Your task to perform on an android device: check android version Image 0: 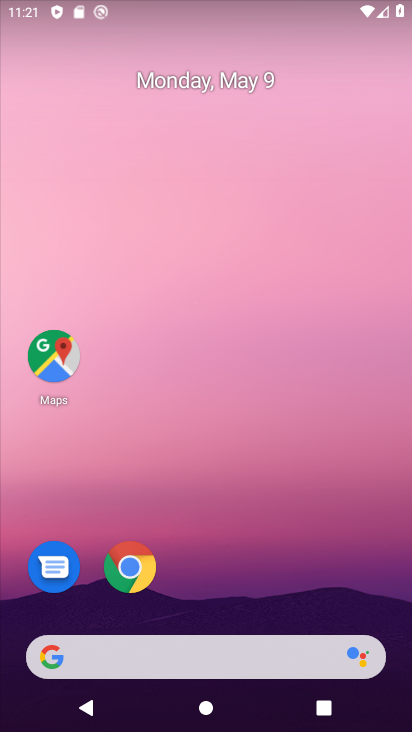
Step 0: drag from (157, 645) to (344, 51)
Your task to perform on an android device: check android version Image 1: 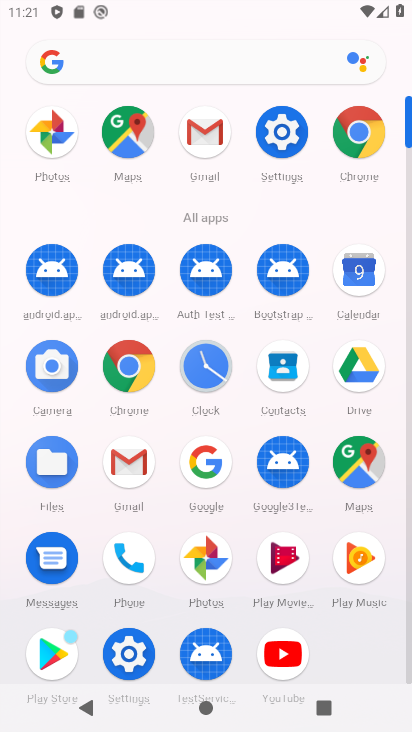
Step 1: click (116, 659)
Your task to perform on an android device: check android version Image 2: 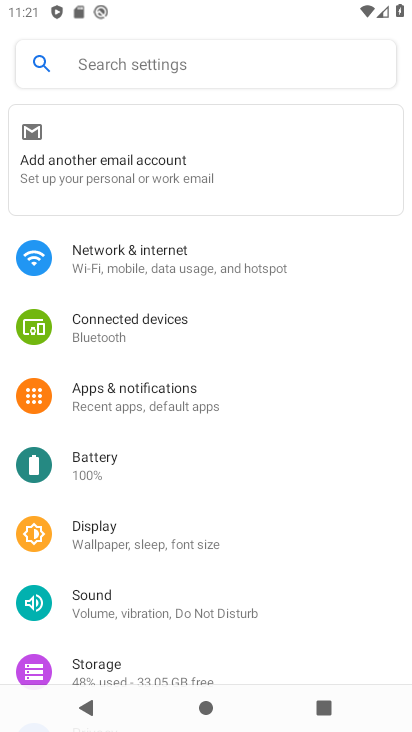
Step 2: drag from (219, 610) to (359, 120)
Your task to perform on an android device: check android version Image 3: 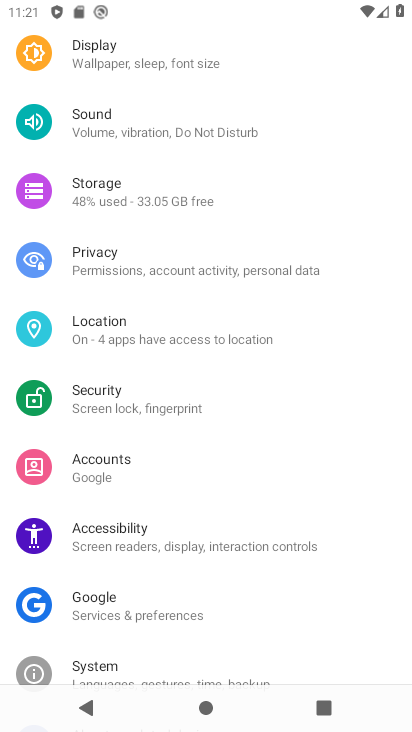
Step 3: drag from (176, 589) to (296, 138)
Your task to perform on an android device: check android version Image 4: 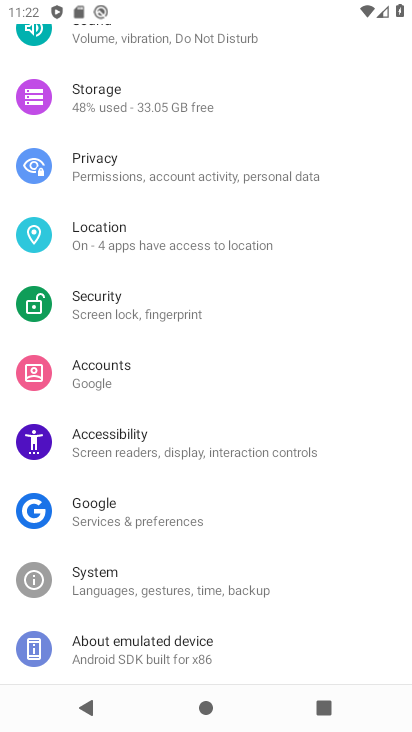
Step 4: click (202, 666)
Your task to perform on an android device: check android version Image 5: 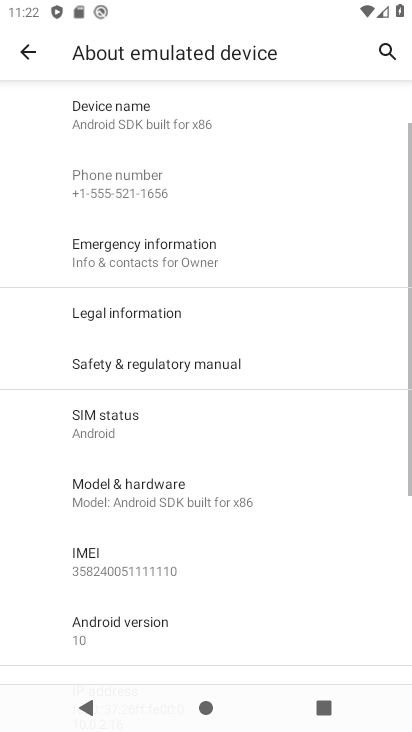
Step 5: drag from (155, 616) to (207, 405)
Your task to perform on an android device: check android version Image 6: 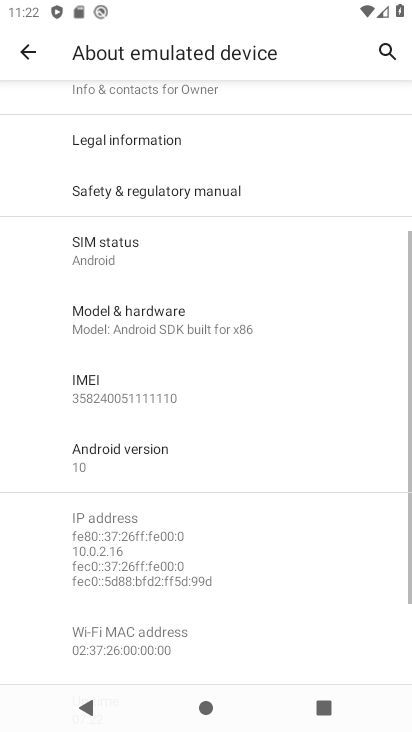
Step 6: click (181, 452)
Your task to perform on an android device: check android version Image 7: 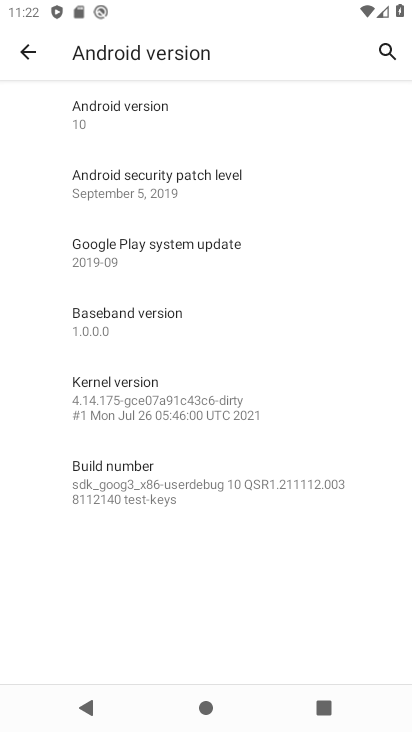
Step 7: task complete